Your task to perform on an android device: see sites visited before in the chrome app Image 0: 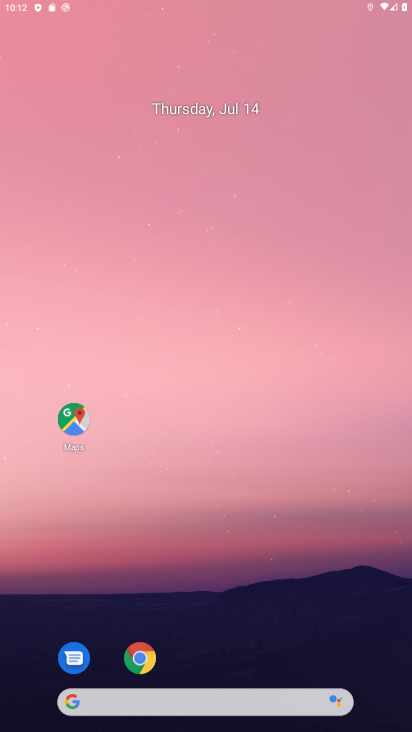
Step 0: click (267, 372)
Your task to perform on an android device: see sites visited before in the chrome app Image 1: 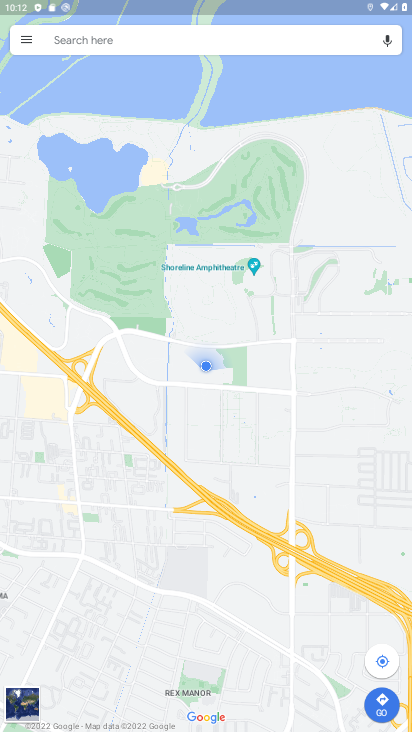
Step 1: press home button
Your task to perform on an android device: see sites visited before in the chrome app Image 2: 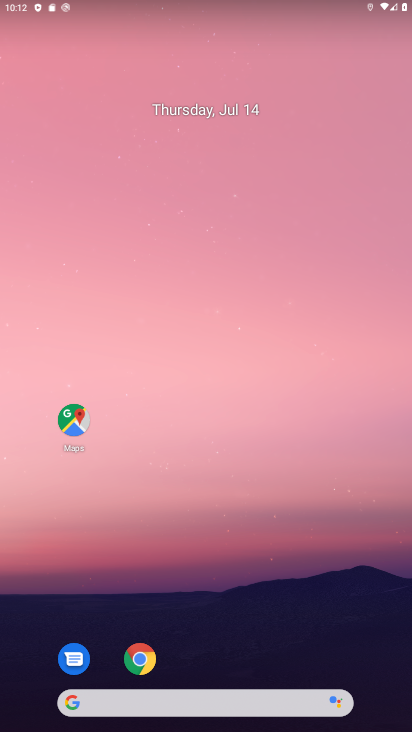
Step 2: click (142, 653)
Your task to perform on an android device: see sites visited before in the chrome app Image 3: 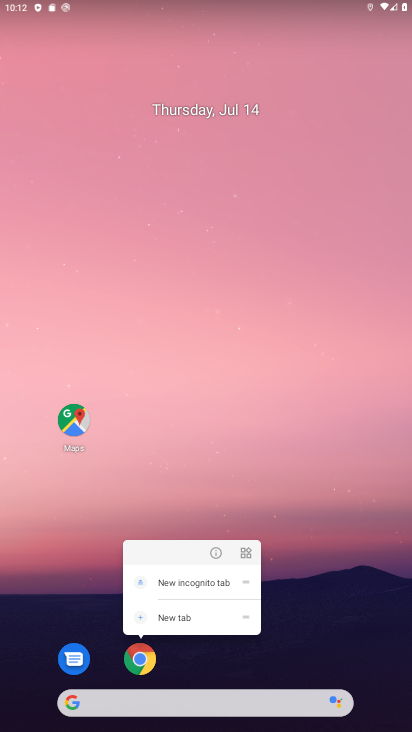
Step 3: drag from (270, 691) to (309, 272)
Your task to perform on an android device: see sites visited before in the chrome app Image 4: 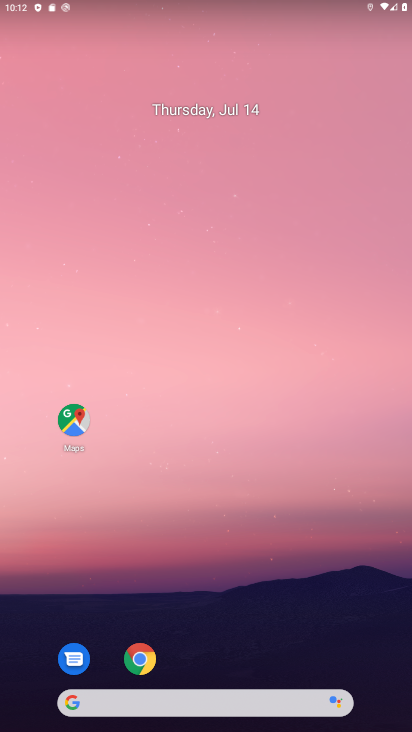
Step 4: drag from (201, 639) to (281, 164)
Your task to perform on an android device: see sites visited before in the chrome app Image 5: 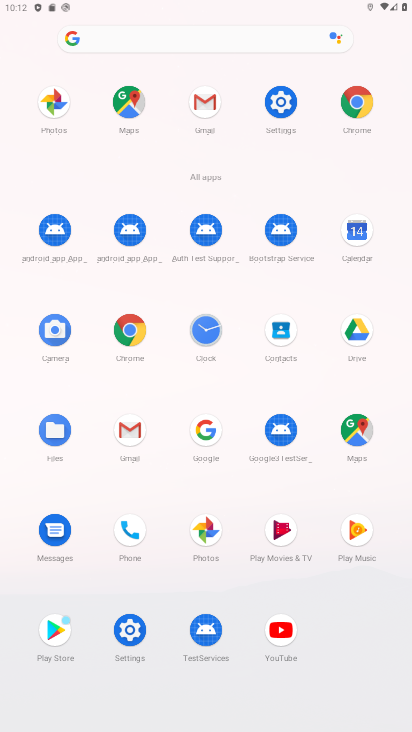
Step 5: click (346, 97)
Your task to perform on an android device: see sites visited before in the chrome app Image 6: 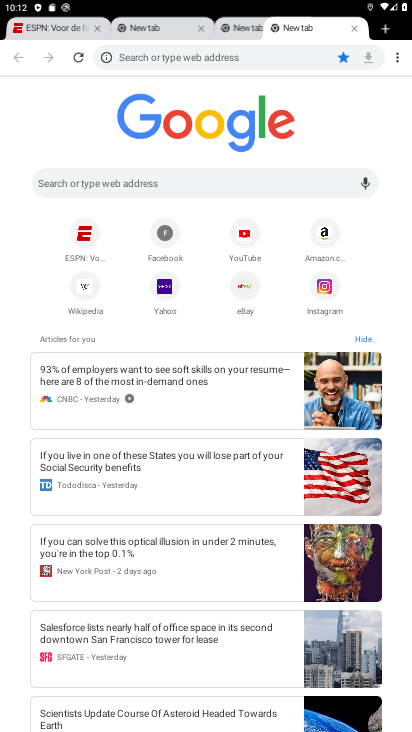
Step 6: click (396, 57)
Your task to perform on an android device: see sites visited before in the chrome app Image 7: 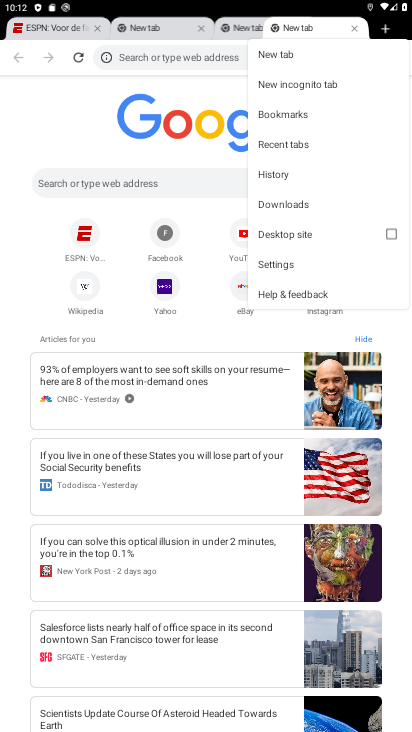
Step 7: click (286, 172)
Your task to perform on an android device: see sites visited before in the chrome app Image 8: 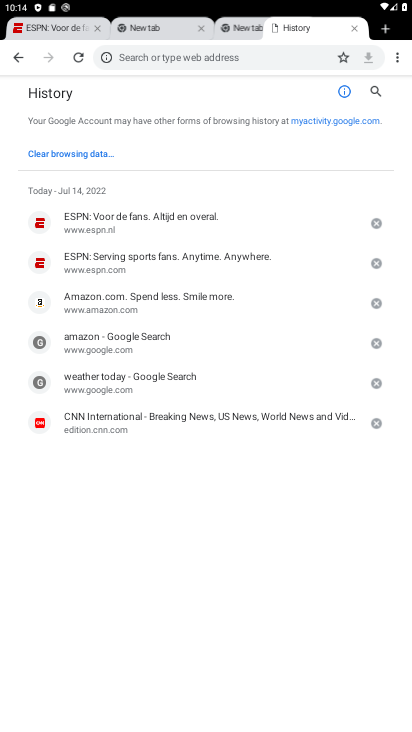
Step 8: task complete